Your task to perform on an android device: Open Amazon Image 0: 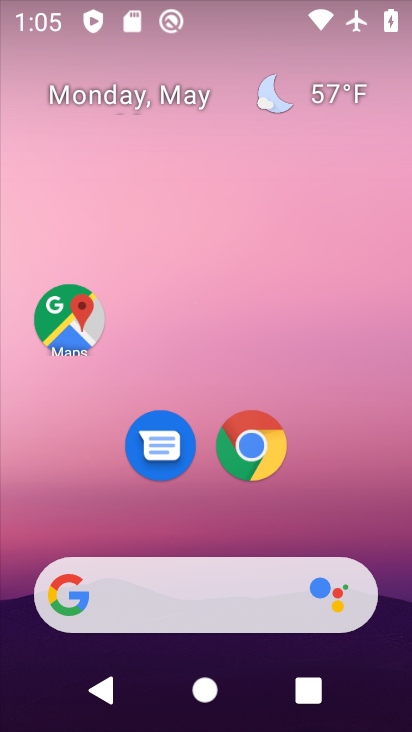
Step 0: drag from (398, 634) to (305, 94)
Your task to perform on an android device: Open Amazon Image 1: 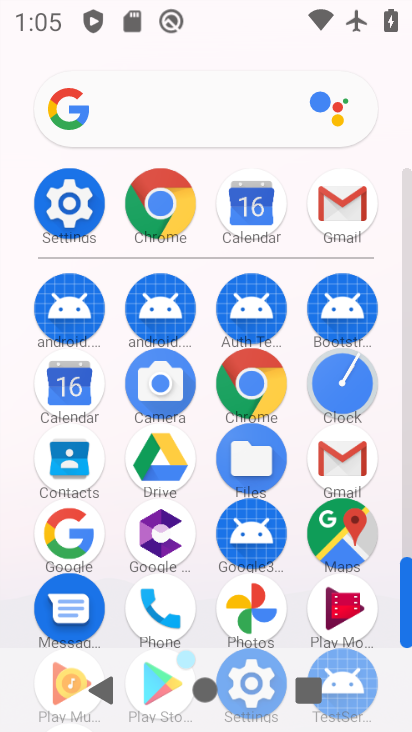
Step 1: click (268, 379)
Your task to perform on an android device: Open Amazon Image 2: 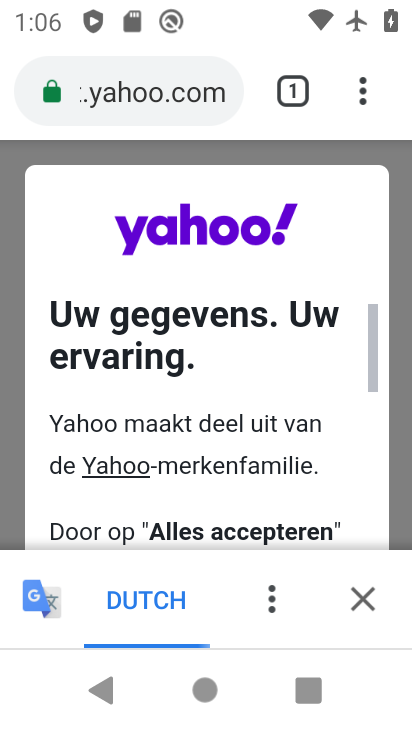
Step 2: press back button
Your task to perform on an android device: Open Amazon Image 3: 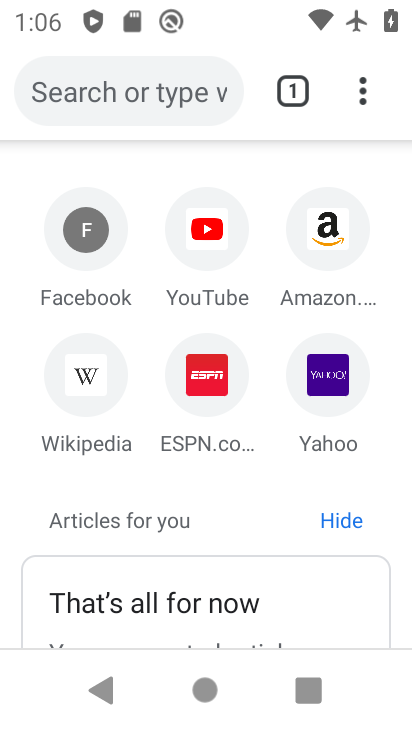
Step 3: click (342, 251)
Your task to perform on an android device: Open Amazon Image 4: 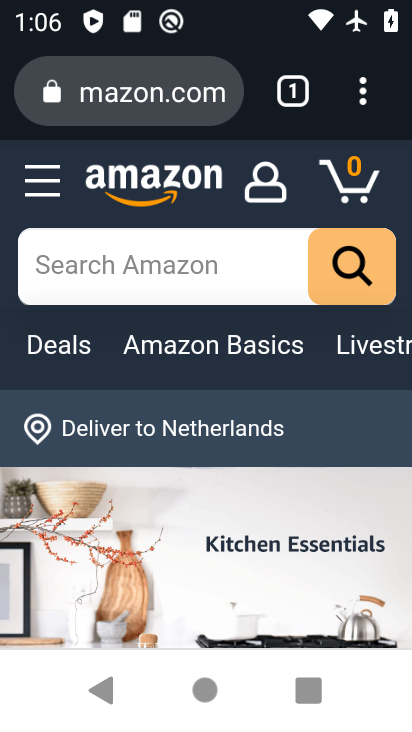
Step 4: task complete